Your task to perform on an android device: What's the weather going to be tomorrow? Image 0: 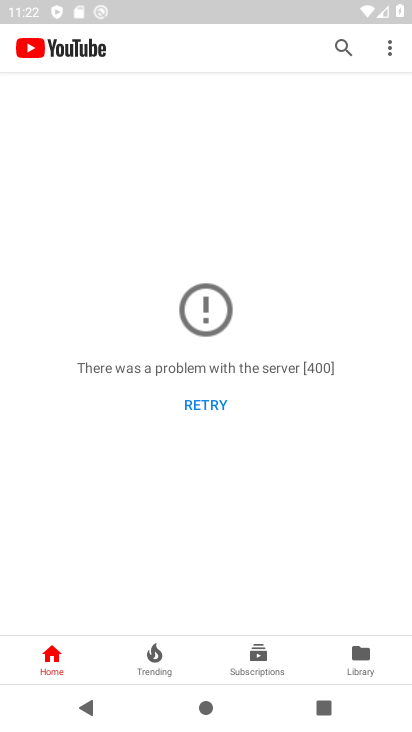
Step 0: press back button
Your task to perform on an android device: What's the weather going to be tomorrow? Image 1: 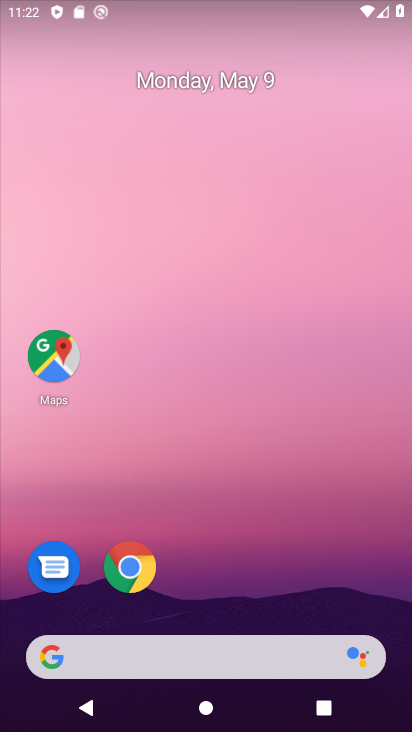
Step 1: drag from (5, 261) to (409, 227)
Your task to perform on an android device: What's the weather going to be tomorrow? Image 2: 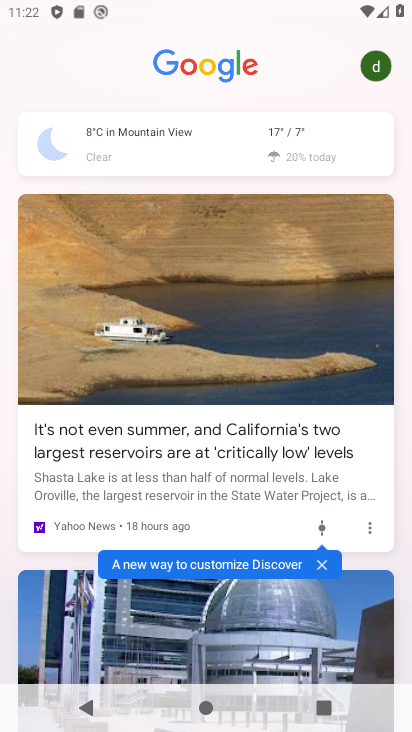
Step 2: click (314, 136)
Your task to perform on an android device: What's the weather going to be tomorrow? Image 3: 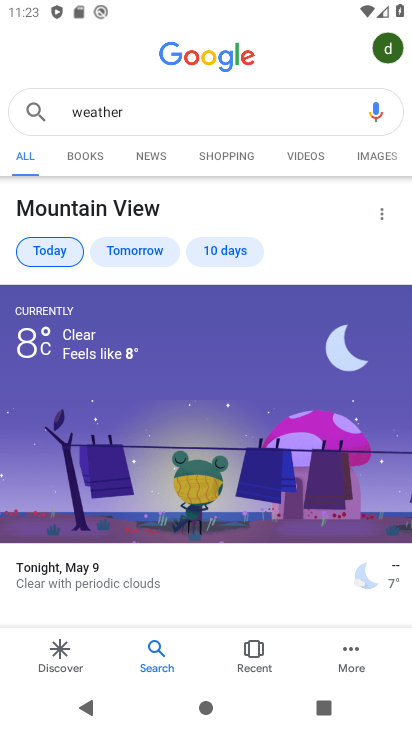
Step 3: click (142, 256)
Your task to perform on an android device: What's the weather going to be tomorrow? Image 4: 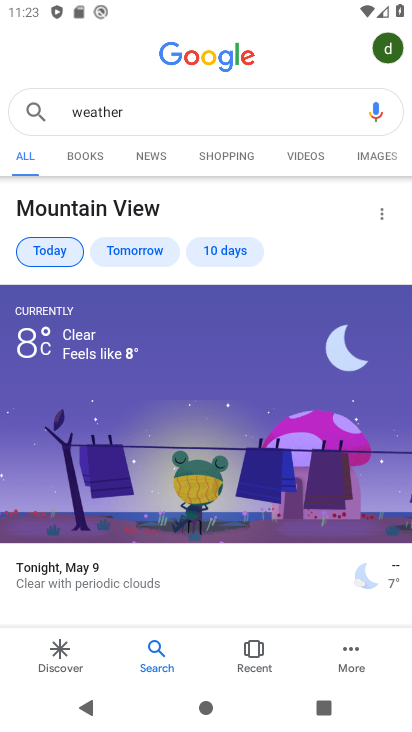
Step 4: click (231, 504)
Your task to perform on an android device: What's the weather going to be tomorrow? Image 5: 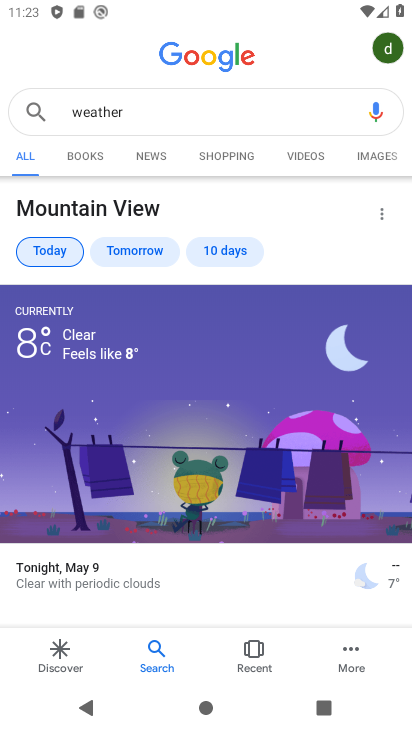
Step 5: click (250, 580)
Your task to perform on an android device: What's the weather going to be tomorrow? Image 6: 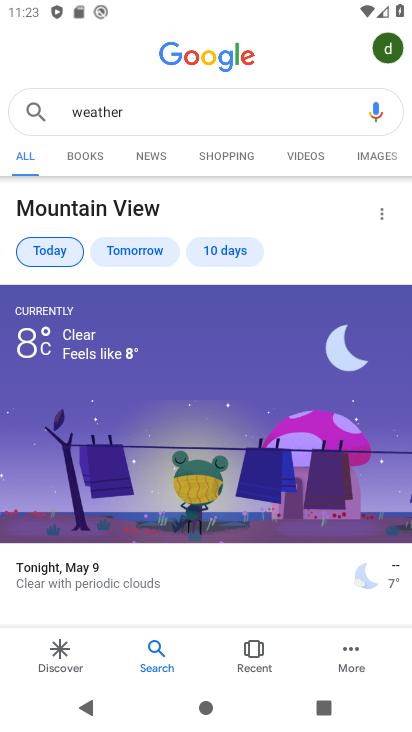
Step 6: drag from (151, 601) to (290, 235)
Your task to perform on an android device: What's the weather going to be tomorrow? Image 7: 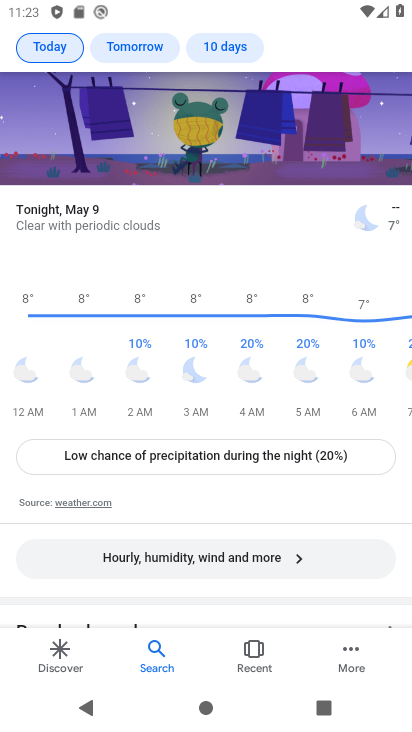
Step 7: drag from (99, 564) to (233, 149)
Your task to perform on an android device: What's the weather going to be tomorrow? Image 8: 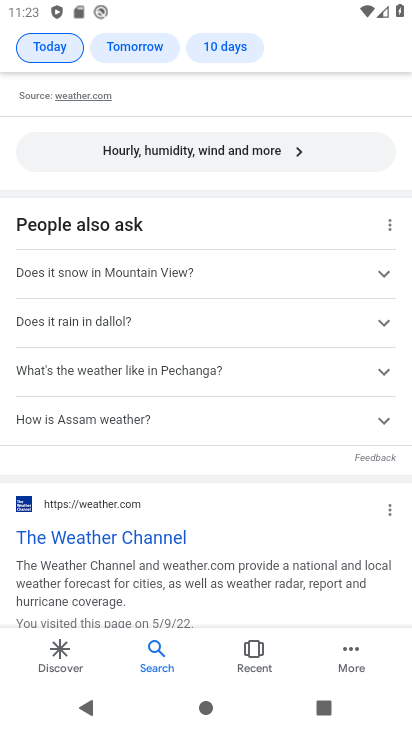
Step 8: click (137, 530)
Your task to perform on an android device: What's the weather going to be tomorrow? Image 9: 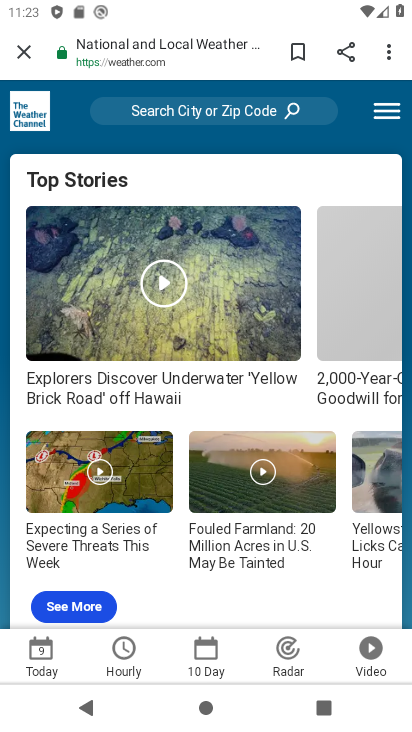
Step 9: click (197, 657)
Your task to perform on an android device: What's the weather going to be tomorrow? Image 10: 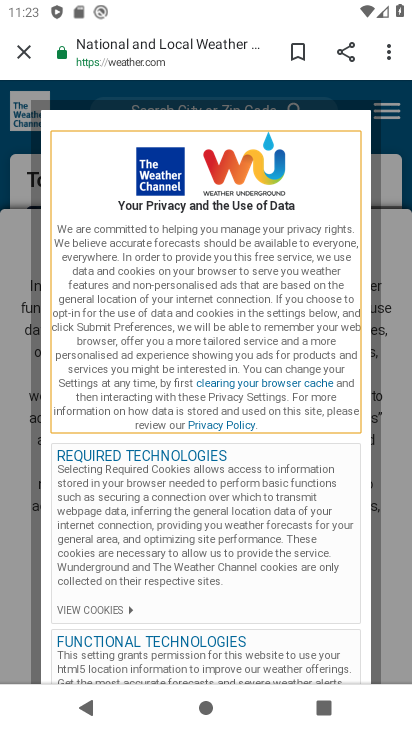
Step 10: drag from (222, 672) to (326, 330)
Your task to perform on an android device: What's the weather going to be tomorrow? Image 11: 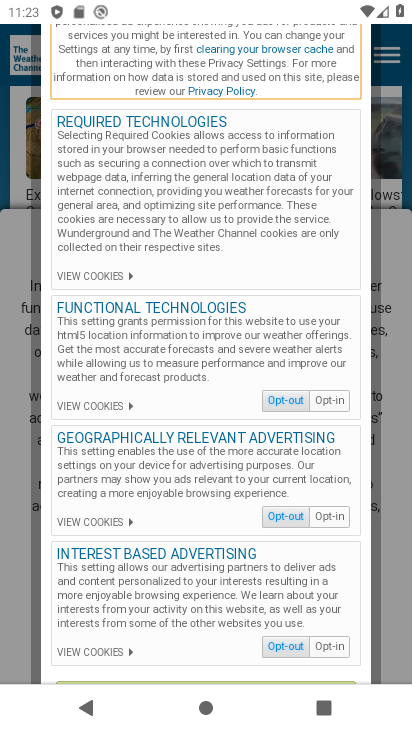
Step 11: drag from (203, 606) to (315, 247)
Your task to perform on an android device: What's the weather going to be tomorrow? Image 12: 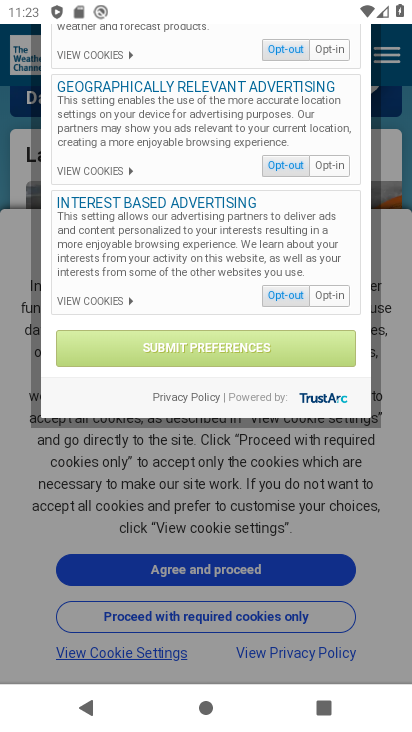
Step 12: click (199, 355)
Your task to perform on an android device: What's the weather going to be tomorrow? Image 13: 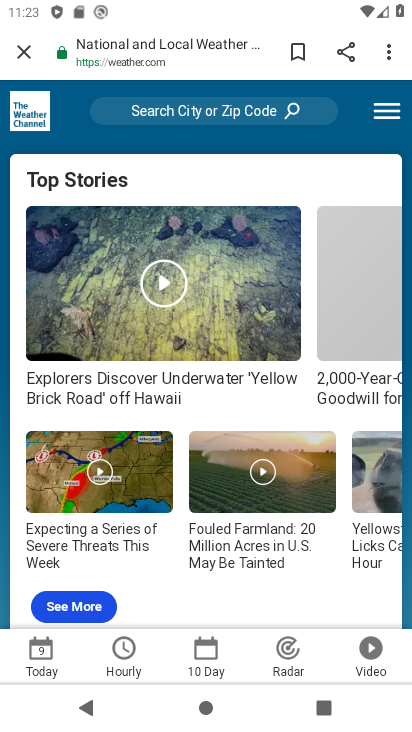
Step 13: click (201, 659)
Your task to perform on an android device: What's the weather going to be tomorrow? Image 14: 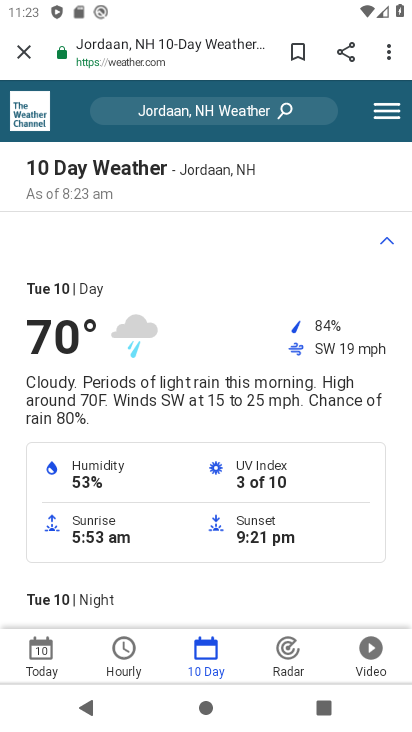
Step 14: task complete